Your task to perform on an android device: Go to location settings Image 0: 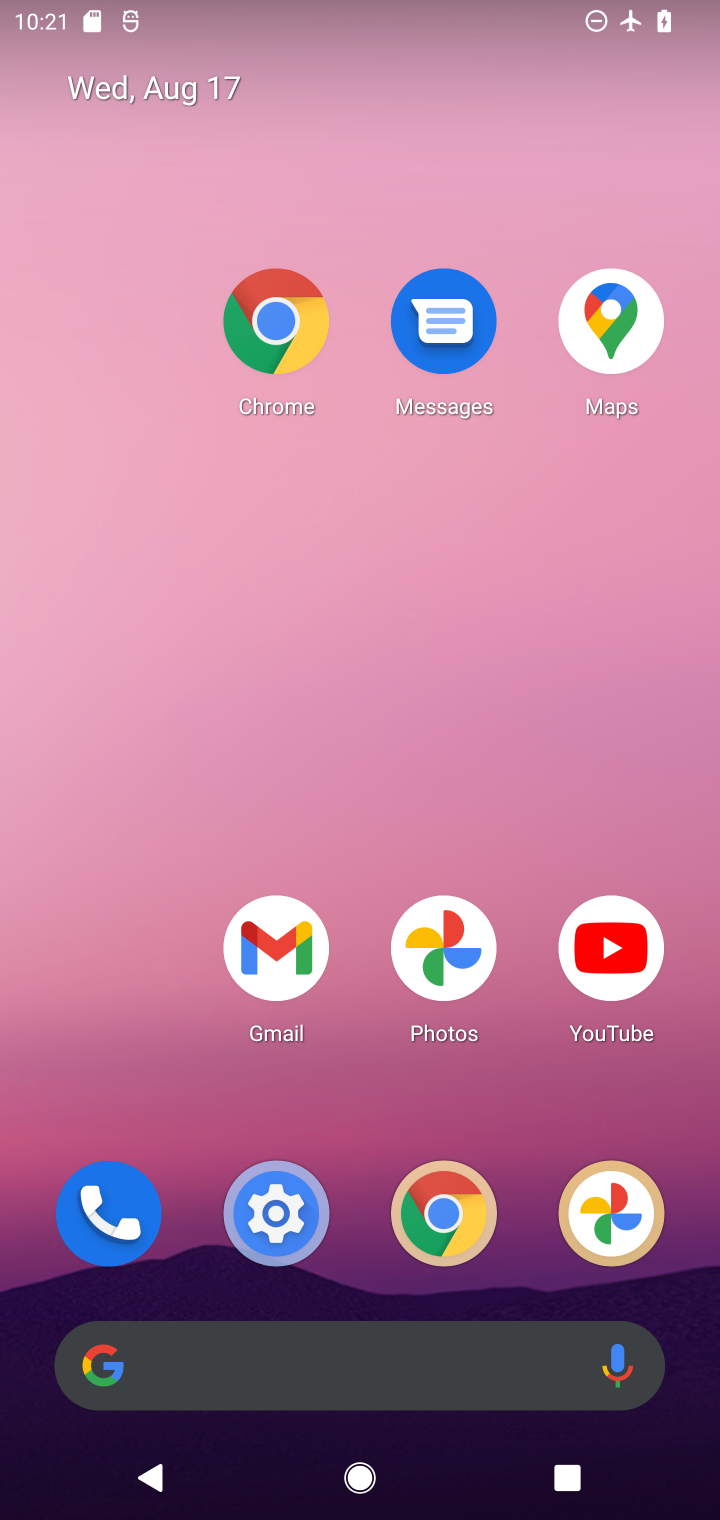
Step 0: click (261, 1236)
Your task to perform on an android device: Go to location settings Image 1: 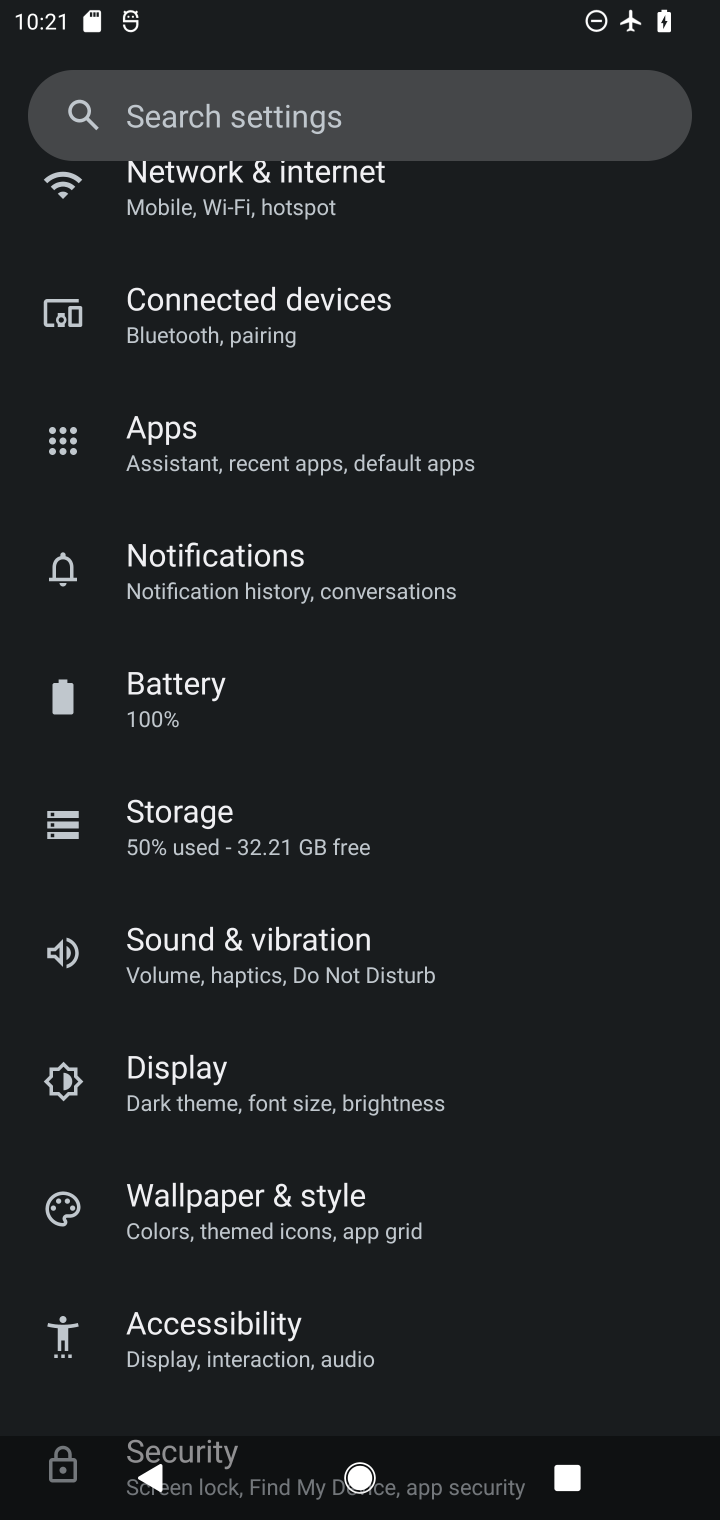
Step 1: drag from (273, 1092) to (391, 463)
Your task to perform on an android device: Go to location settings Image 2: 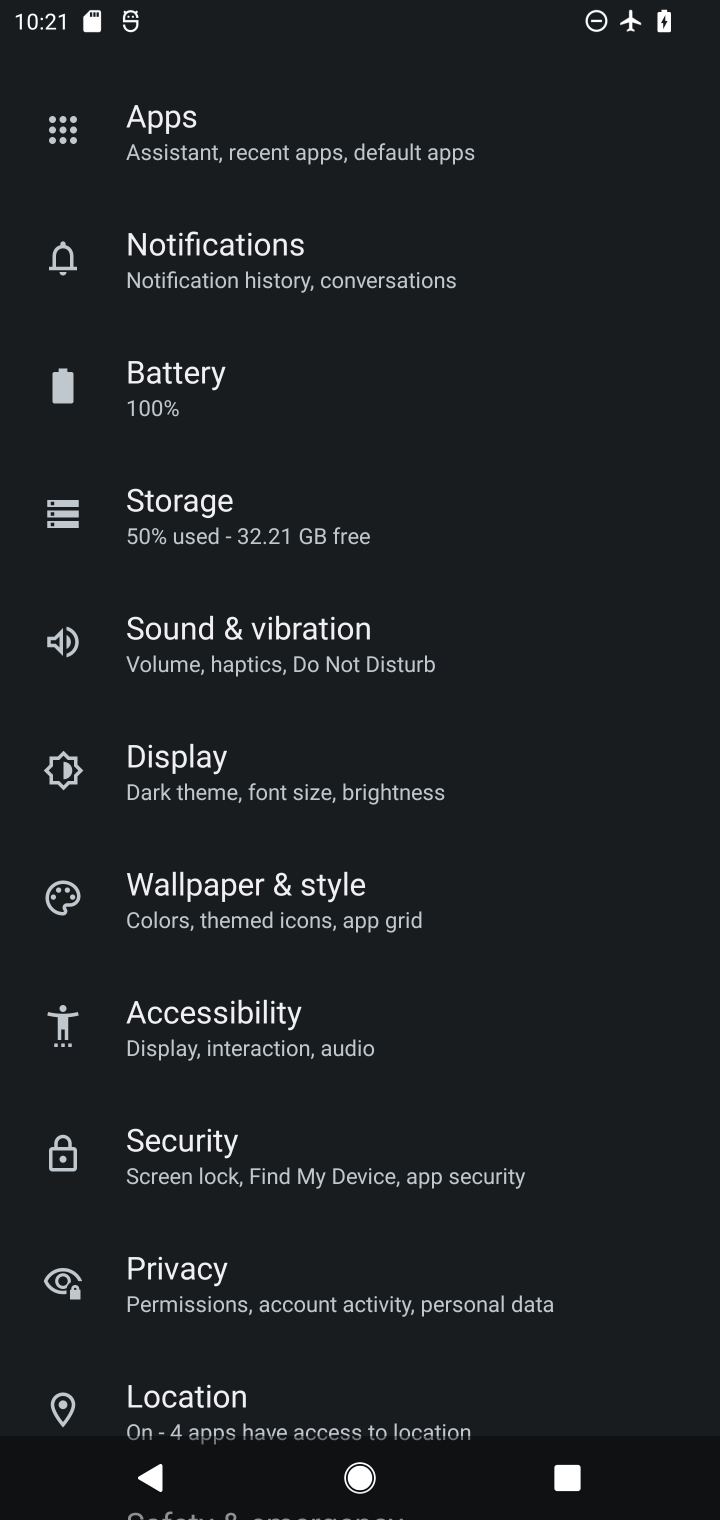
Step 2: click (296, 1401)
Your task to perform on an android device: Go to location settings Image 3: 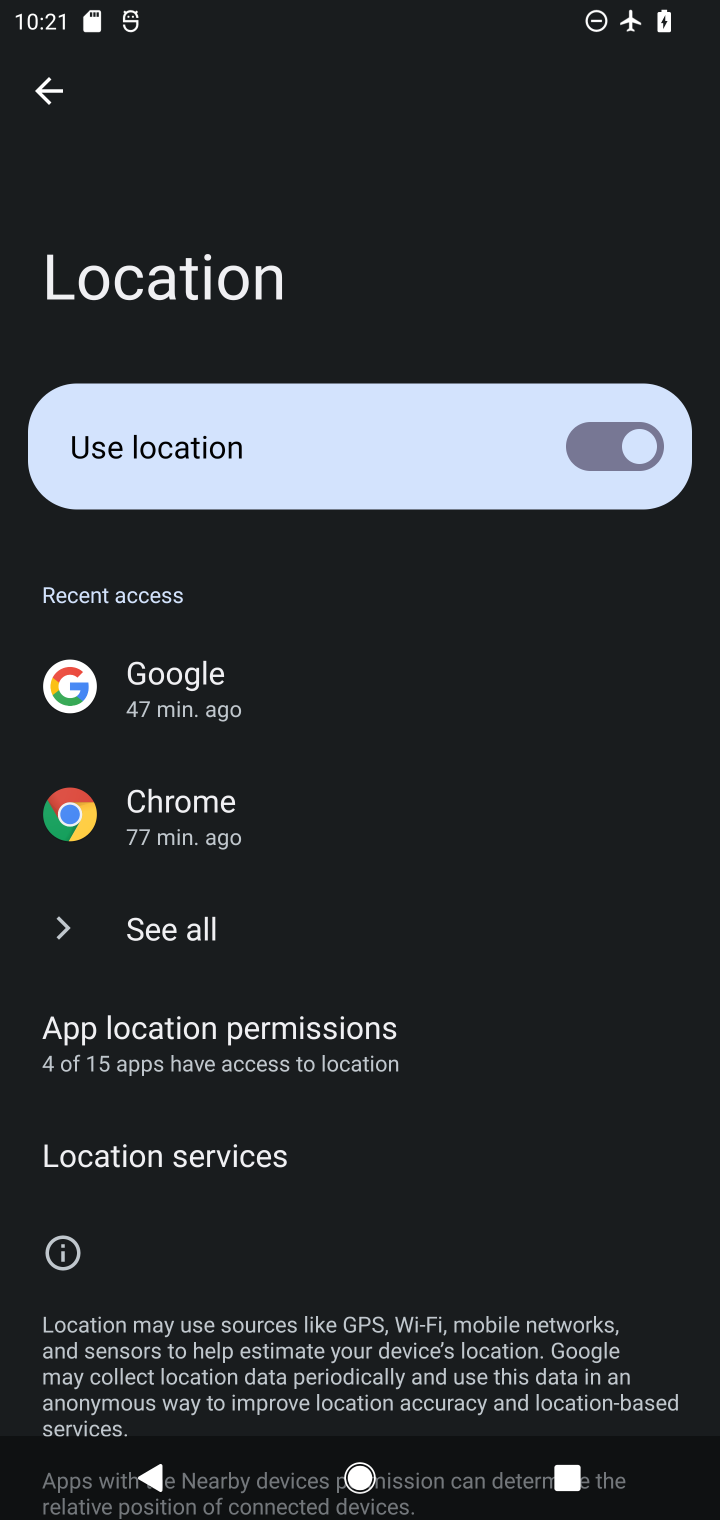
Step 3: task complete